Your task to perform on an android device: check battery use Image 0: 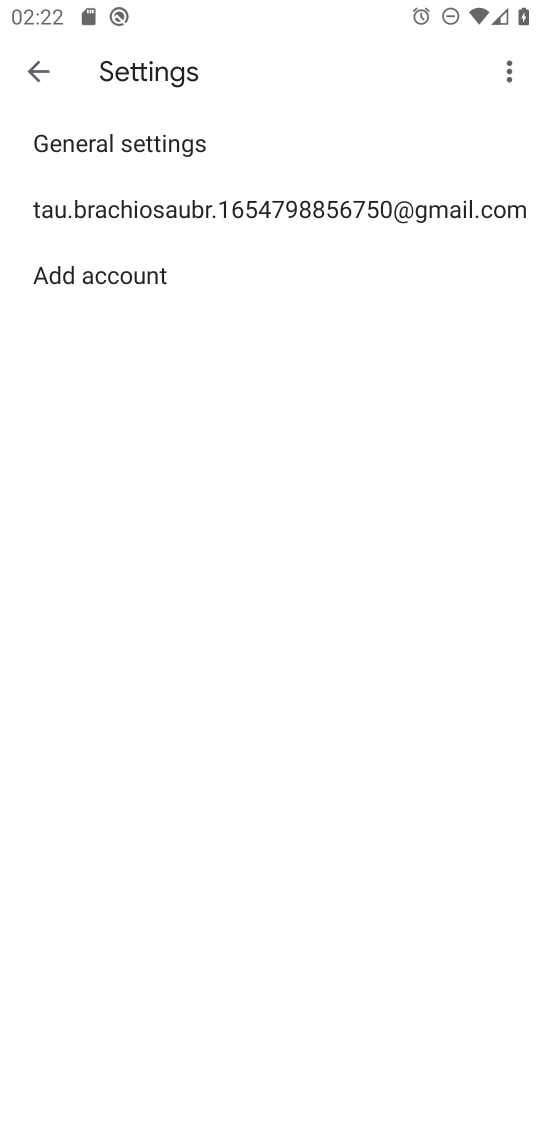
Step 0: press home button
Your task to perform on an android device: check battery use Image 1: 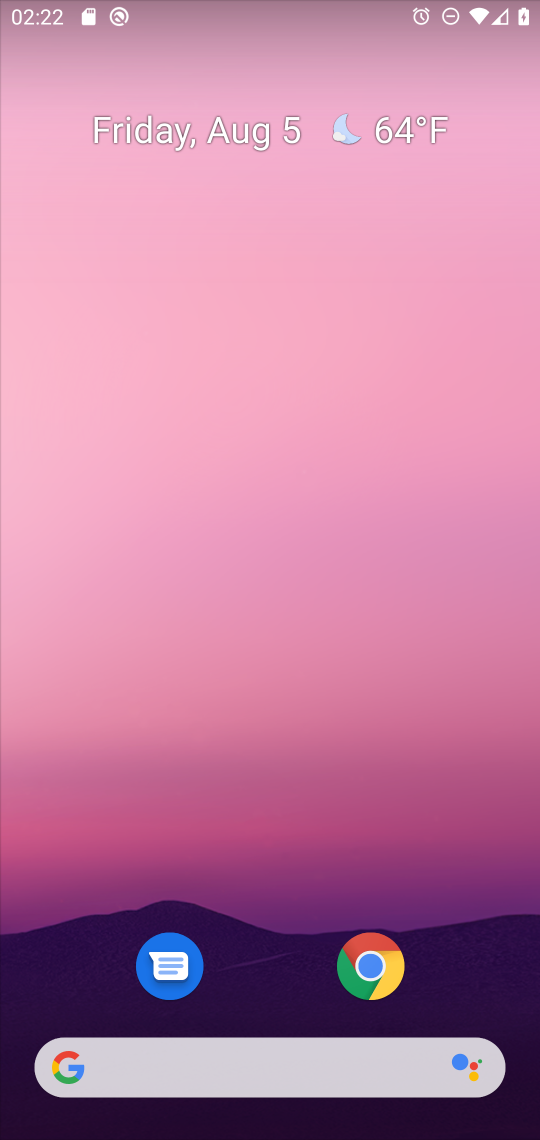
Step 1: drag from (263, 901) to (317, 18)
Your task to perform on an android device: check battery use Image 2: 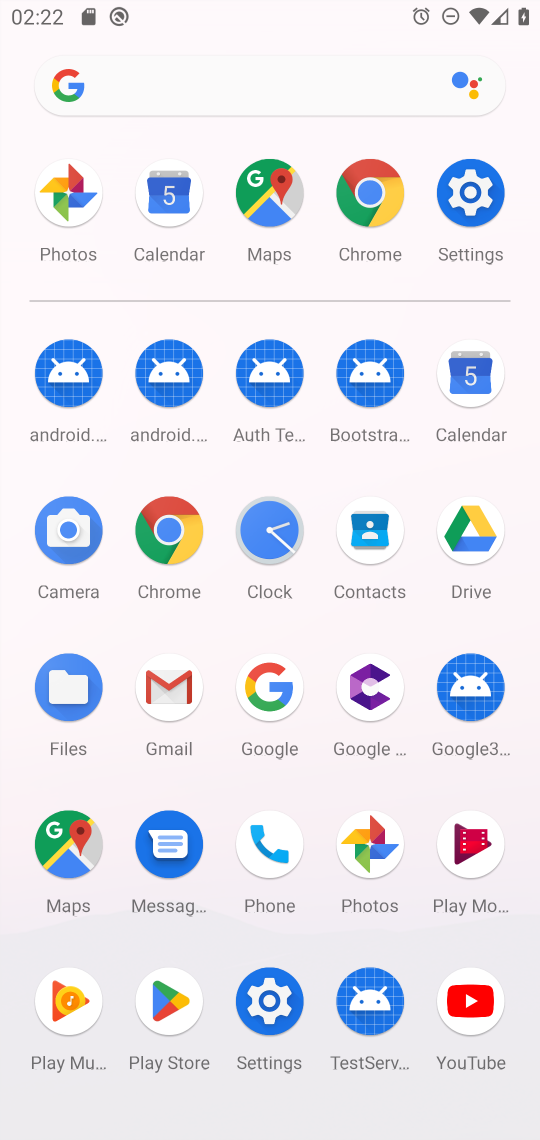
Step 2: click (468, 192)
Your task to perform on an android device: check battery use Image 3: 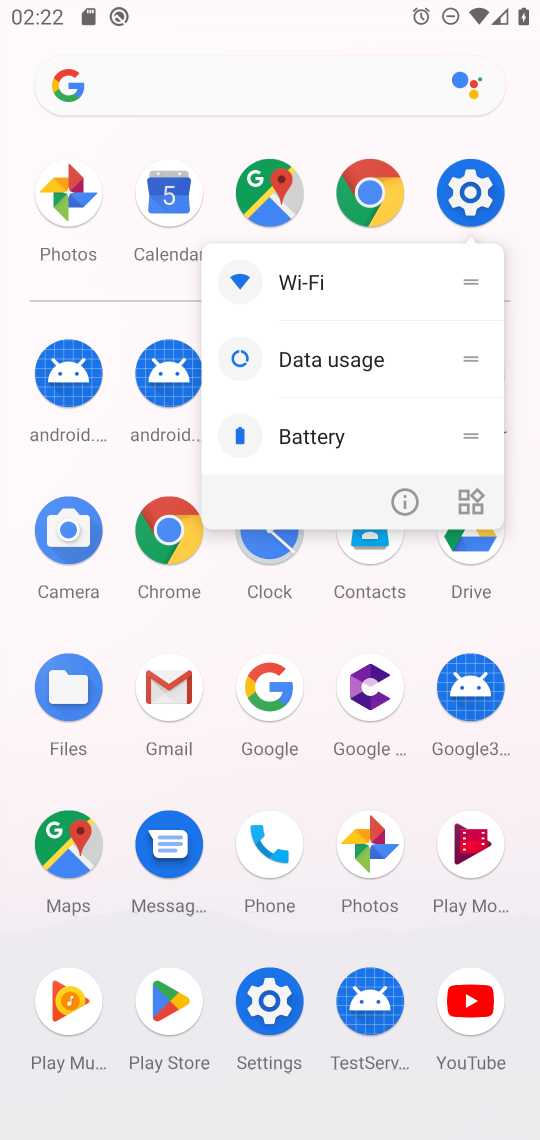
Step 3: click (468, 192)
Your task to perform on an android device: check battery use Image 4: 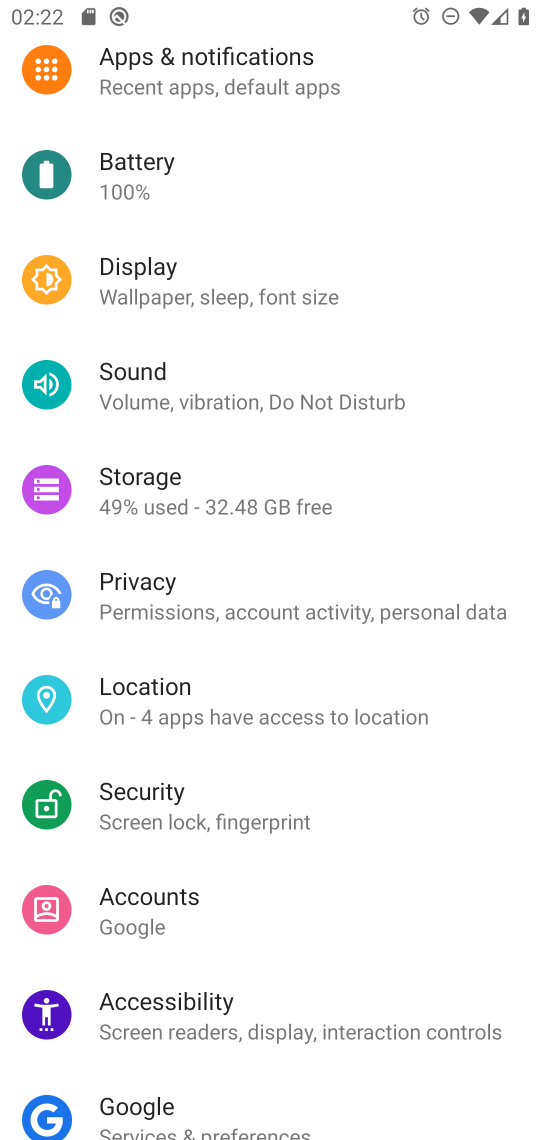
Step 4: click (220, 173)
Your task to perform on an android device: check battery use Image 5: 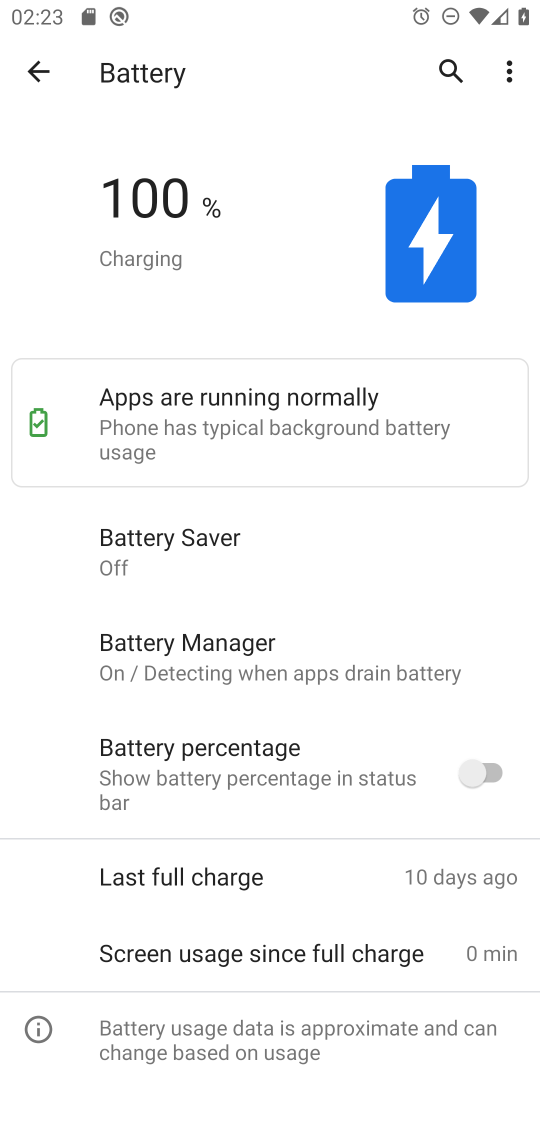
Step 5: click (509, 69)
Your task to perform on an android device: check battery use Image 6: 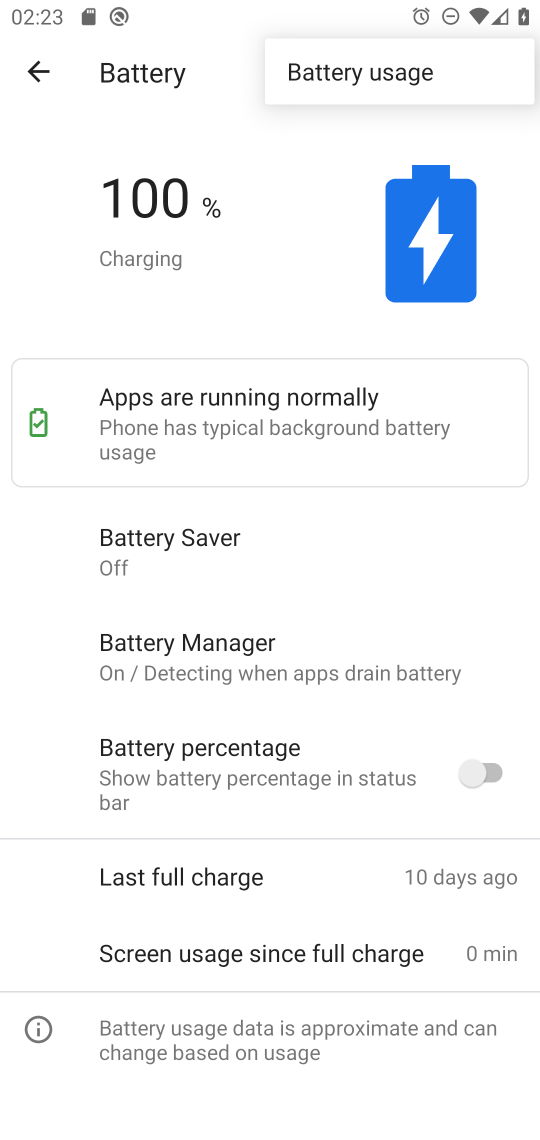
Step 6: click (404, 70)
Your task to perform on an android device: check battery use Image 7: 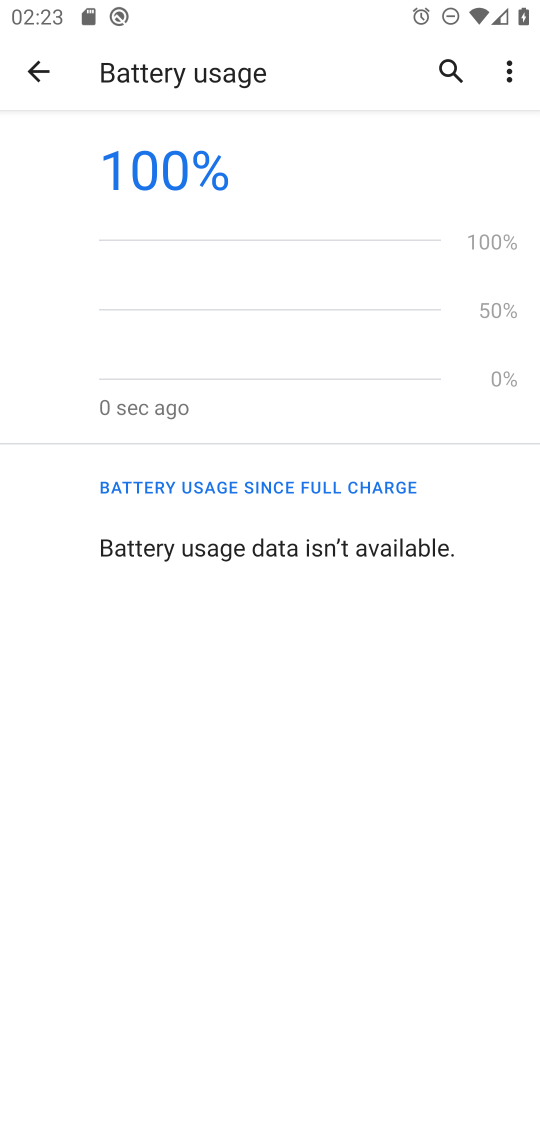
Step 7: task complete